Your task to perform on an android device: Show me popular games on the Play Store Image 0: 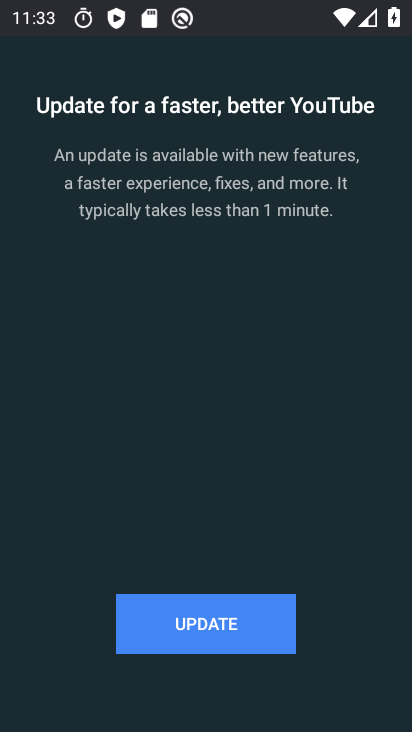
Step 0: press home button
Your task to perform on an android device: Show me popular games on the Play Store Image 1: 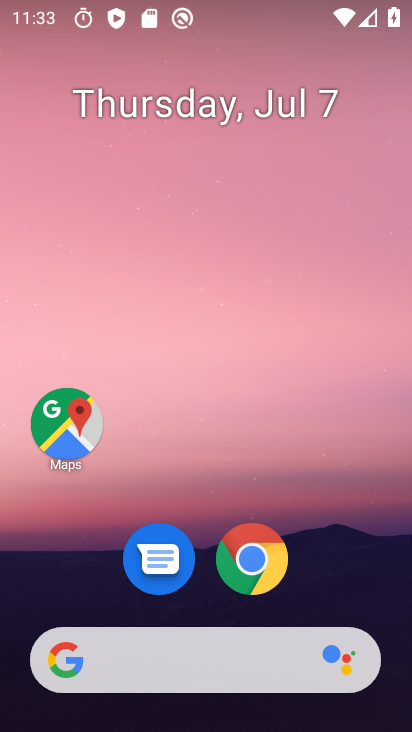
Step 1: drag from (349, 570) to (355, 73)
Your task to perform on an android device: Show me popular games on the Play Store Image 2: 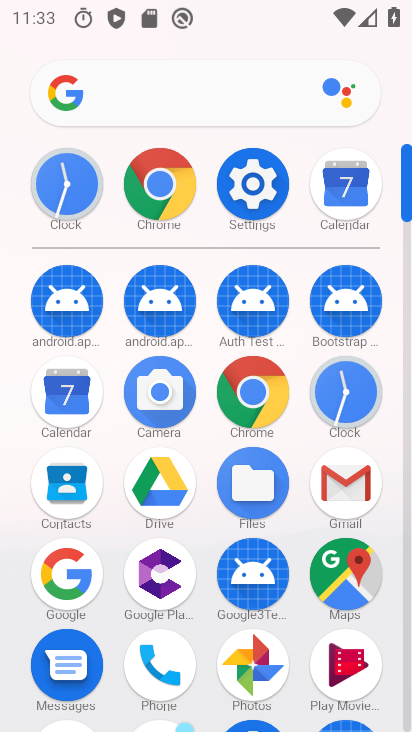
Step 2: drag from (388, 617) to (391, 334)
Your task to perform on an android device: Show me popular games on the Play Store Image 3: 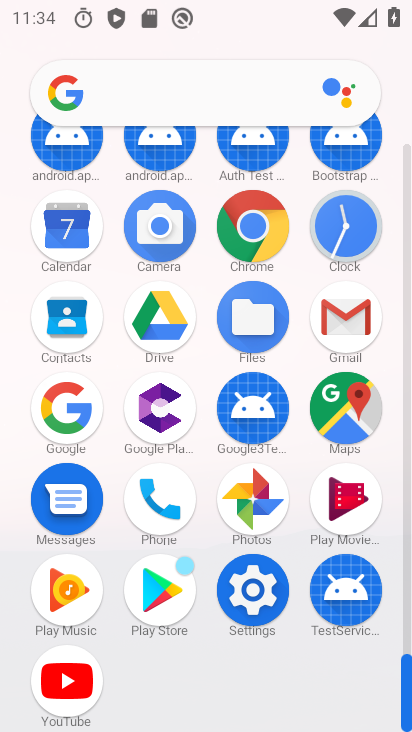
Step 3: click (166, 596)
Your task to perform on an android device: Show me popular games on the Play Store Image 4: 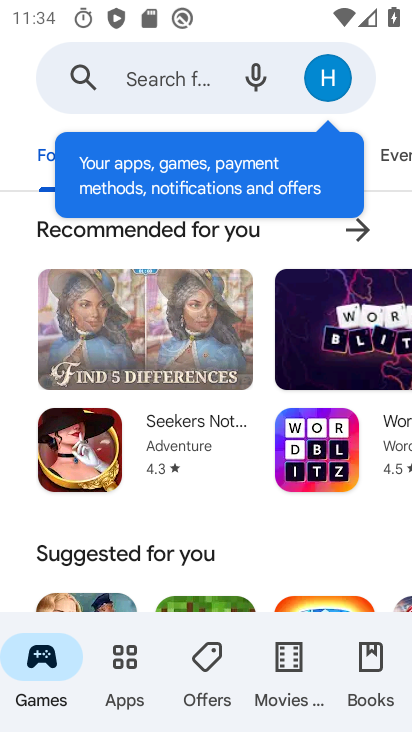
Step 4: task complete